Your task to perform on an android device: Open Yahoo.com Image 0: 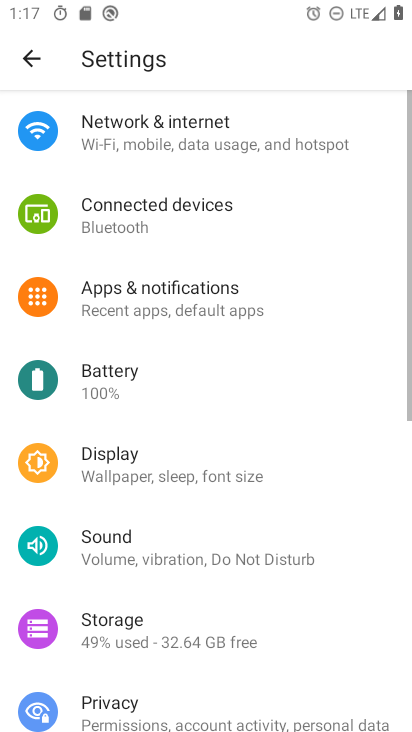
Step 0: press home button
Your task to perform on an android device: Open Yahoo.com Image 1: 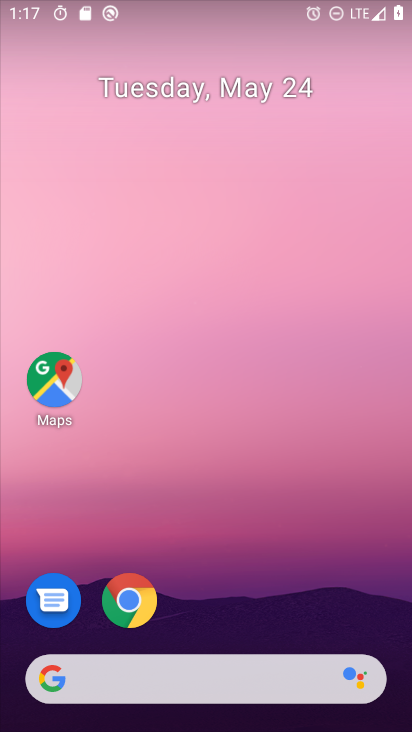
Step 1: click (125, 604)
Your task to perform on an android device: Open Yahoo.com Image 2: 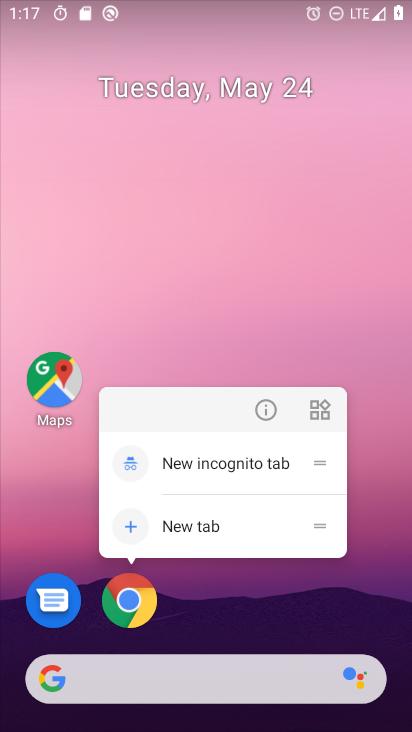
Step 2: click (126, 603)
Your task to perform on an android device: Open Yahoo.com Image 3: 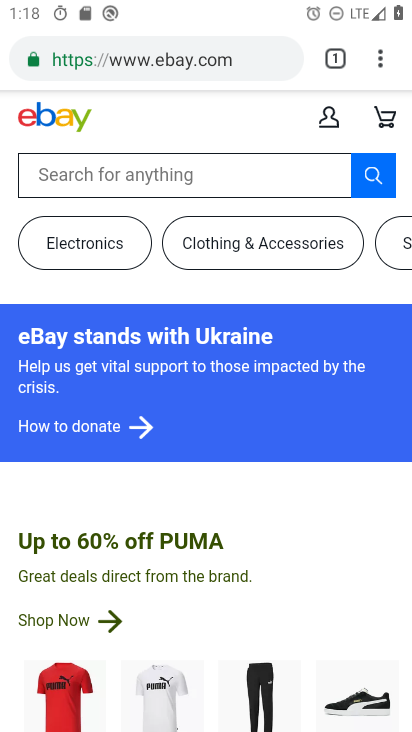
Step 3: click (177, 65)
Your task to perform on an android device: Open Yahoo.com Image 4: 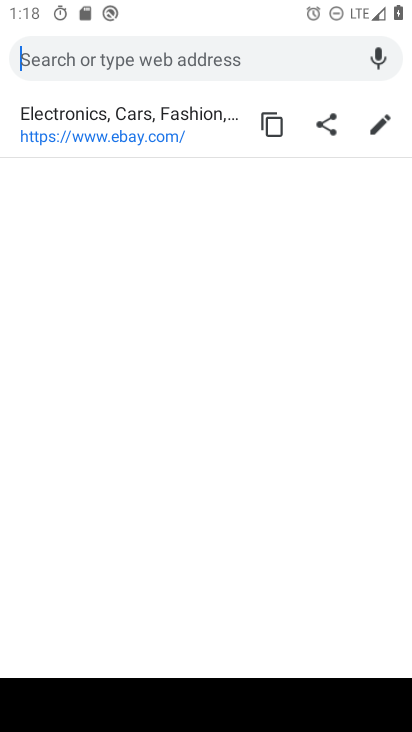
Step 4: type "yahoo.com"
Your task to perform on an android device: Open Yahoo.com Image 5: 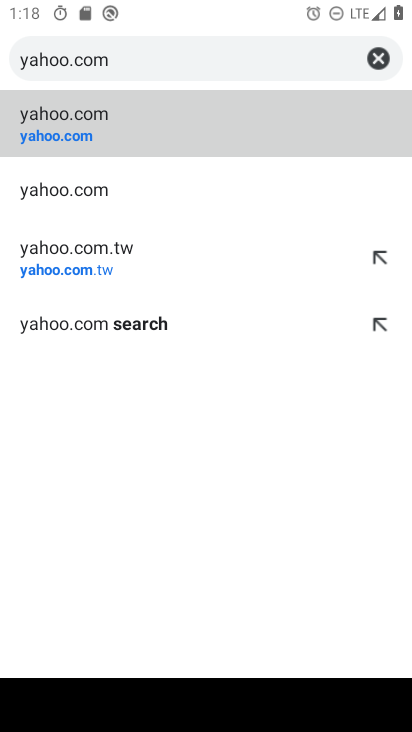
Step 5: click (55, 134)
Your task to perform on an android device: Open Yahoo.com Image 6: 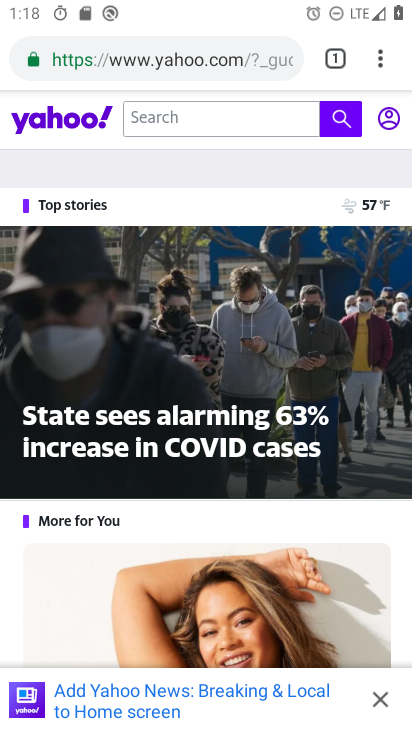
Step 6: task complete